Your task to perform on an android device: change notifications settings Image 0: 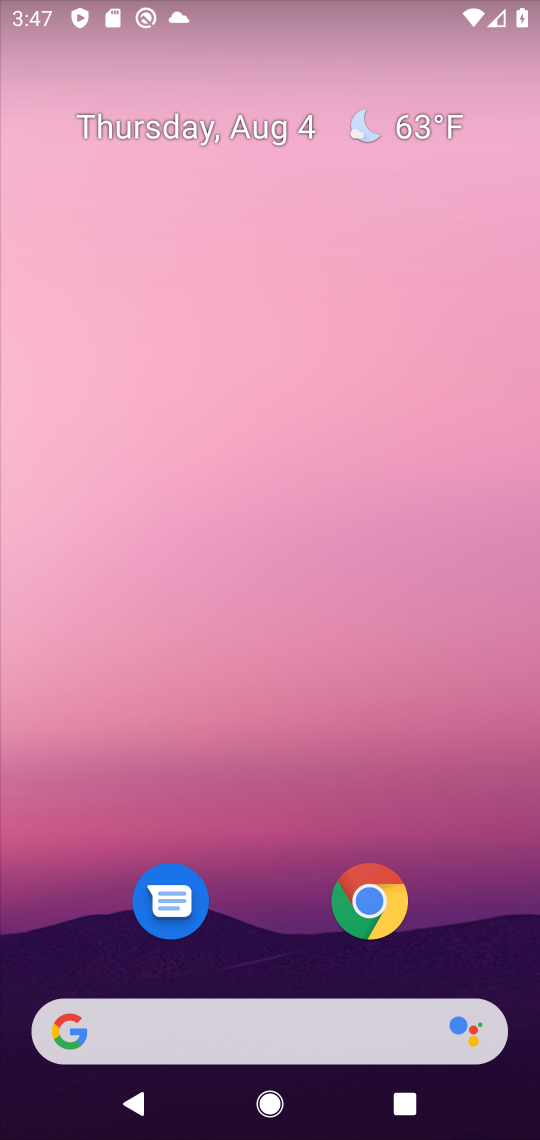
Step 0: drag from (292, 891) to (297, 176)
Your task to perform on an android device: change notifications settings Image 1: 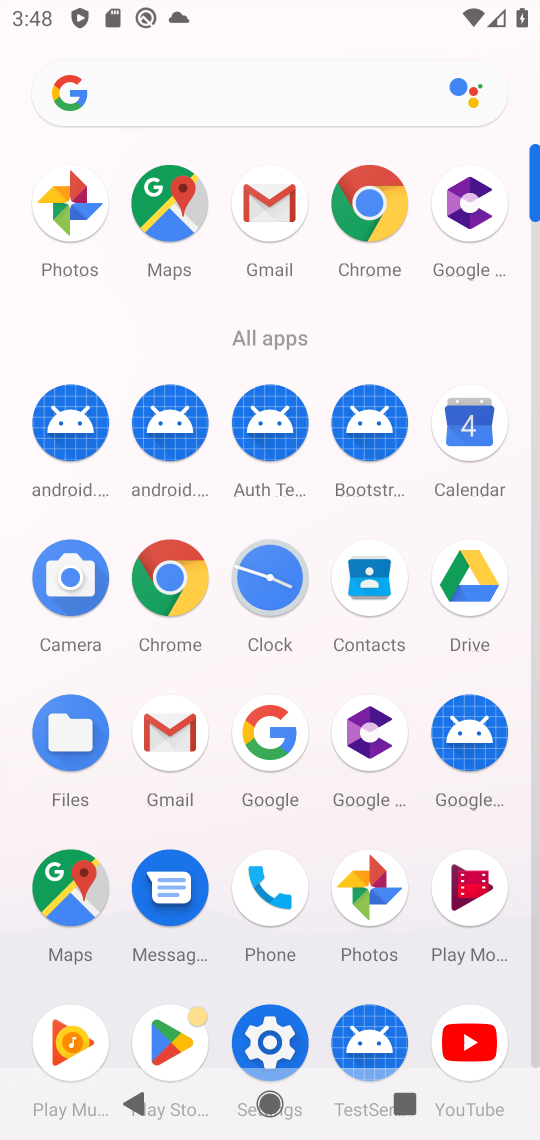
Step 1: click (281, 1028)
Your task to perform on an android device: change notifications settings Image 2: 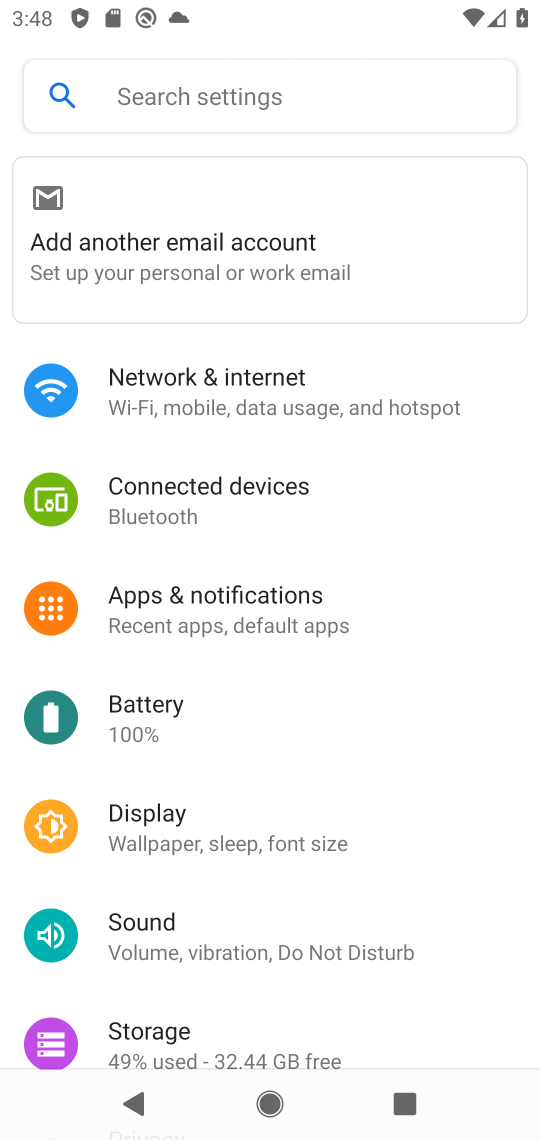
Step 2: click (216, 602)
Your task to perform on an android device: change notifications settings Image 3: 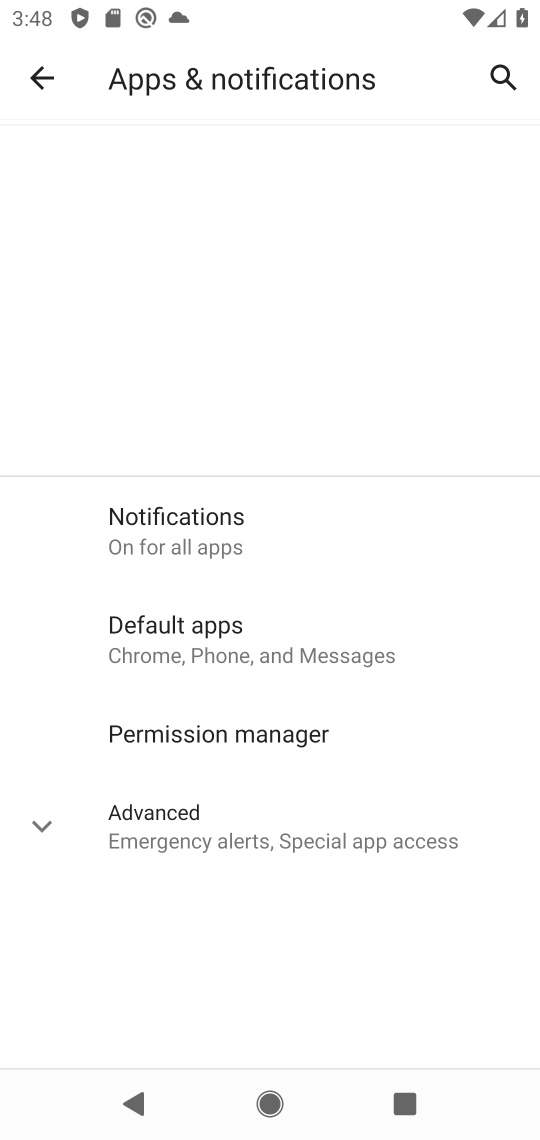
Step 3: click (222, 511)
Your task to perform on an android device: change notifications settings Image 4: 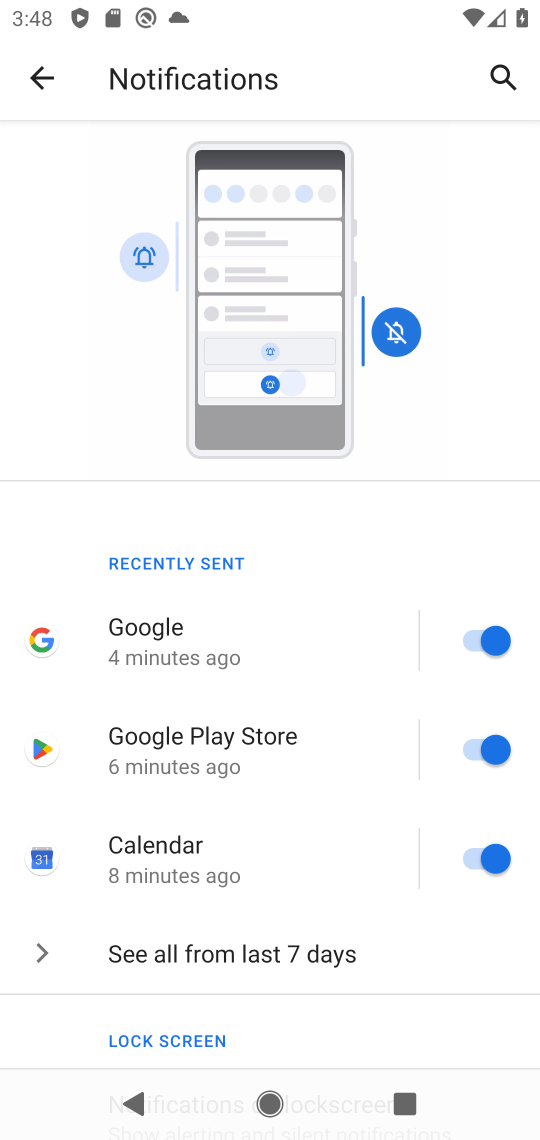
Step 4: task complete